Your task to perform on an android device: Open maps Image 0: 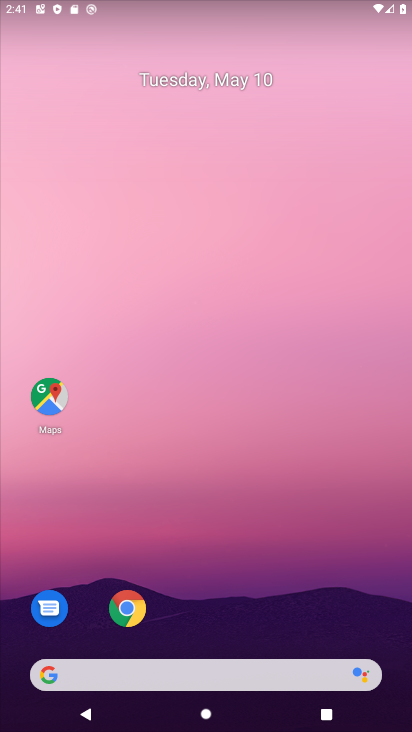
Step 0: click (64, 390)
Your task to perform on an android device: Open maps Image 1: 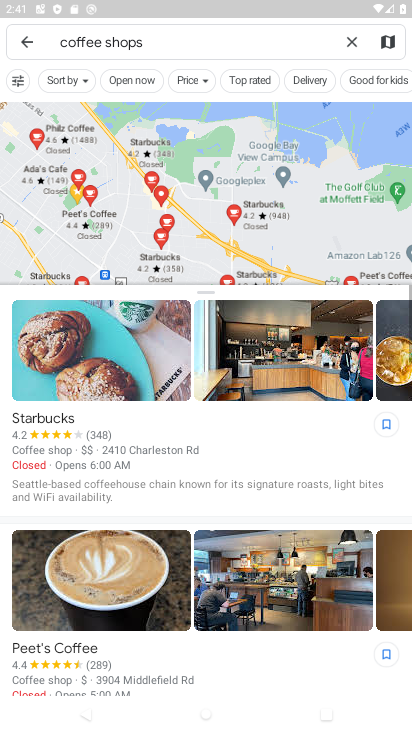
Step 1: click (21, 46)
Your task to perform on an android device: Open maps Image 2: 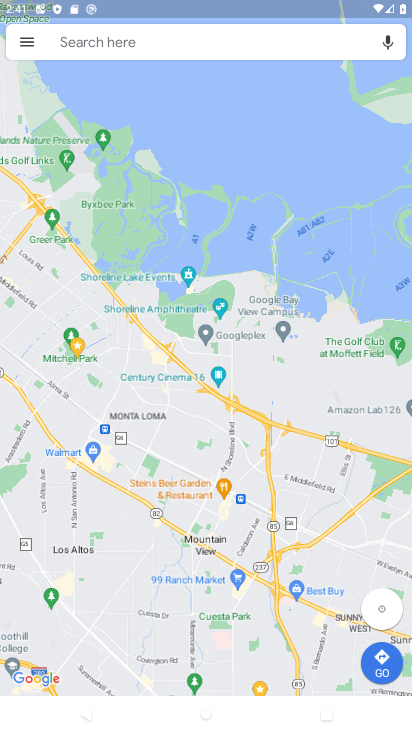
Step 2: task complete